Your task to perform on an android device: Go to network settings Image 0: 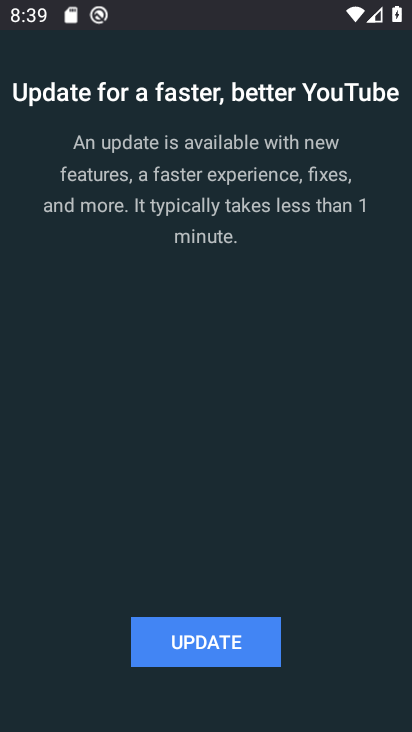
Step 0: press back button
Your task to perform on an android device: Go to network settings Image 1: 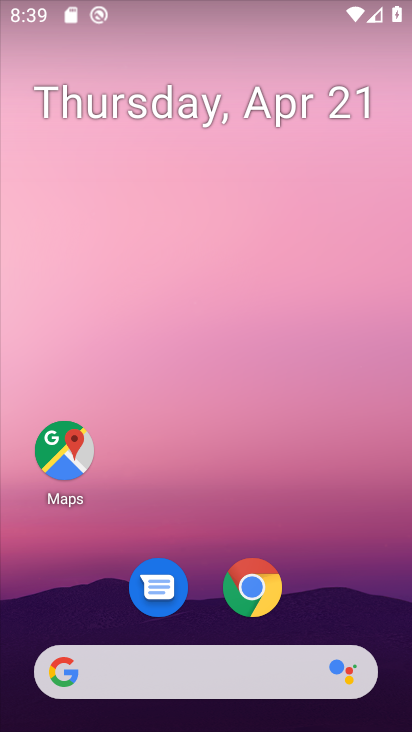
Step 1: drag from (345, 286) to (343, 210)
Your task to perform on an android device: Go to network settings Image 2: 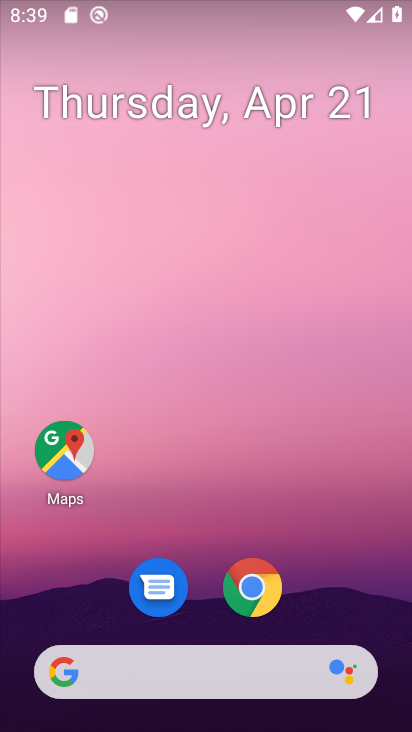
Step 2: drag from (375, 535) to (373, 224)
Your task to perform on an android device: Go to network settings Image 3: 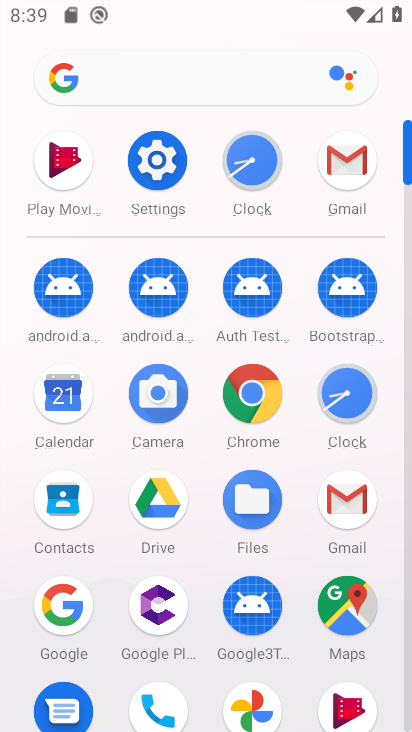
Step 3: click (151, 153)
Your task to perform on an android device: Go to network settings Image 4: 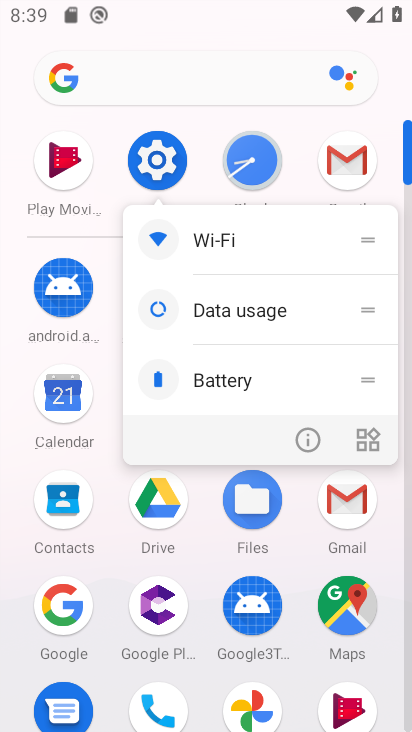
Step 4: click (151, 153)
Your task to perform on an android device: Go to network settings Image 5: 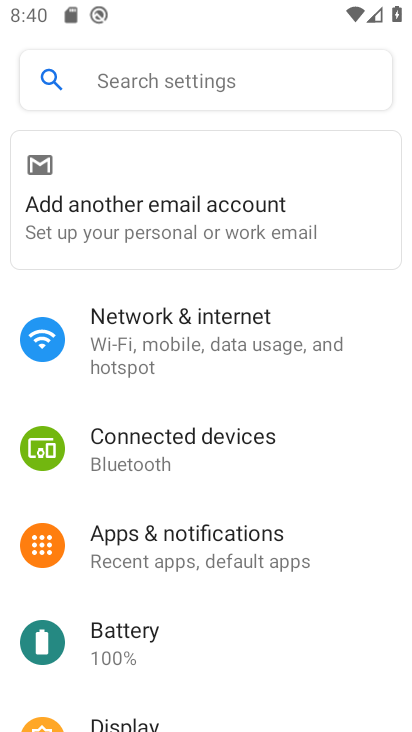
Step 5: click (155, 323)
Your task to perform on an android device: Go to network settings Image 6: 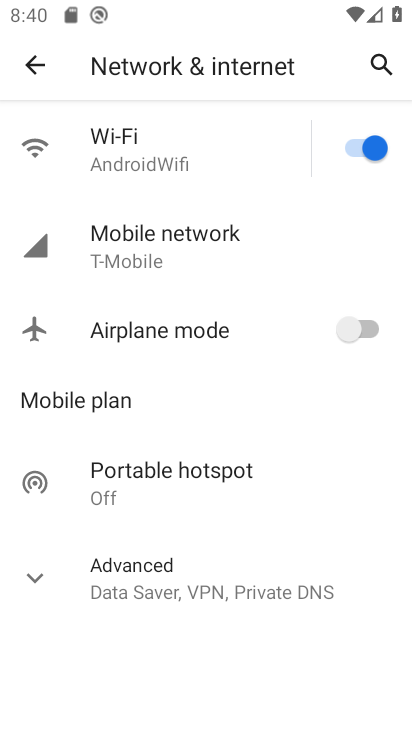
Step 6: click (128, 248)
Your task to perform on an android device: Go to network settings Image 7: 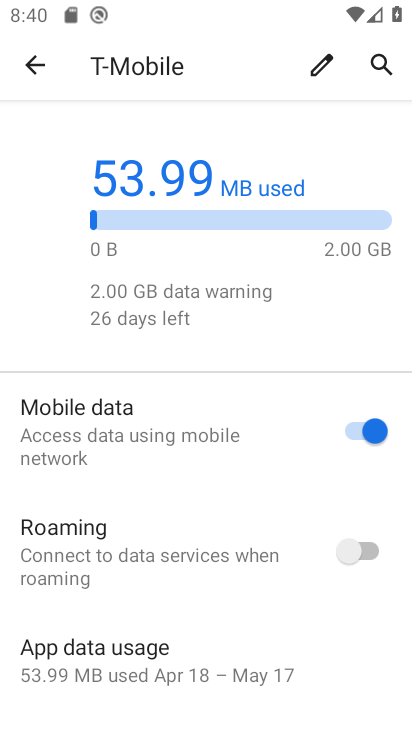
Step 7: task complete